Your task to perform on an android device: Open Maps and search for coffee Image 0: 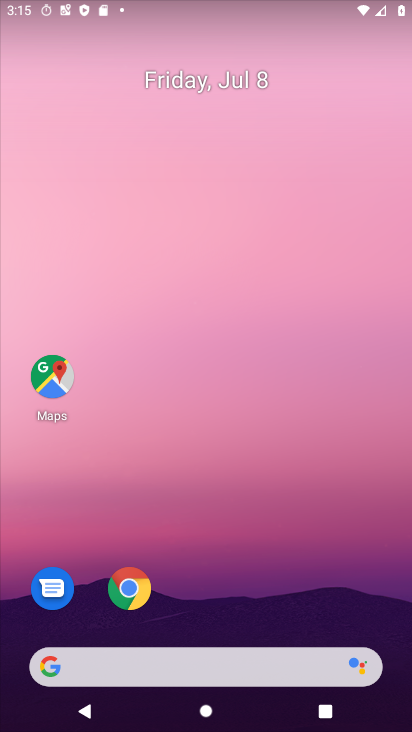
Step 0: press home button
Your task to perform on an android device: Open Maps and search for coffee Image 1: 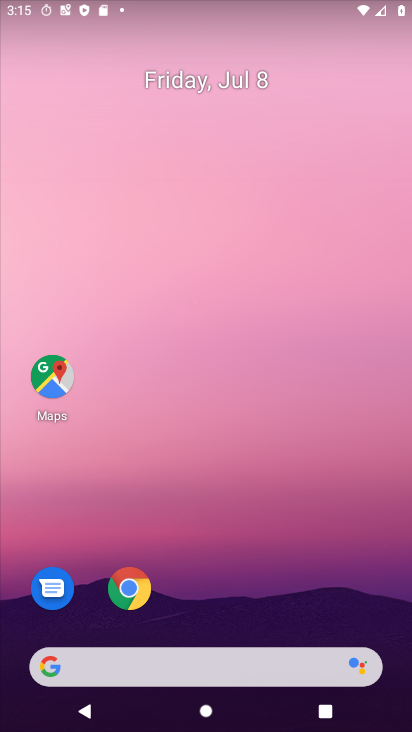
Step 1: drag from (244, 612) to (246, 71)
Your task to perform on an android device: Open Maps and search for coffee Image 2: 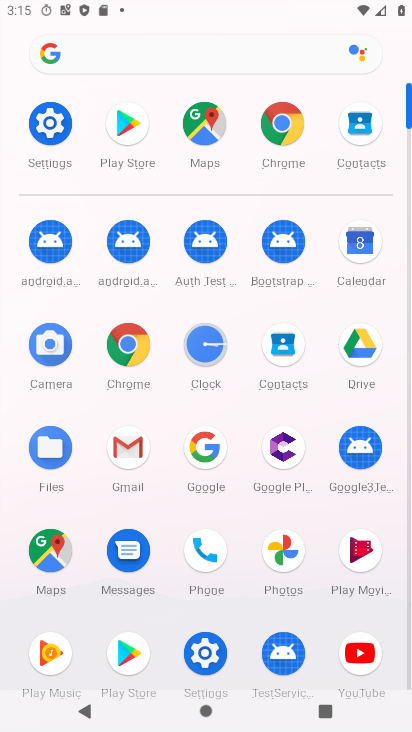
Step 2: click (210, 131)
Your task to perform on an android device: Open Maps and search for coffee Image 3: 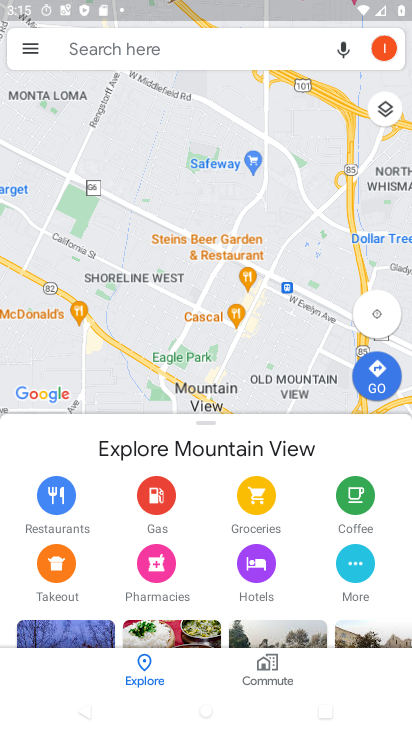
Step 3: click (168, 57)
Your task to perform on an android device: Open Maps and search for coffee Image 4: 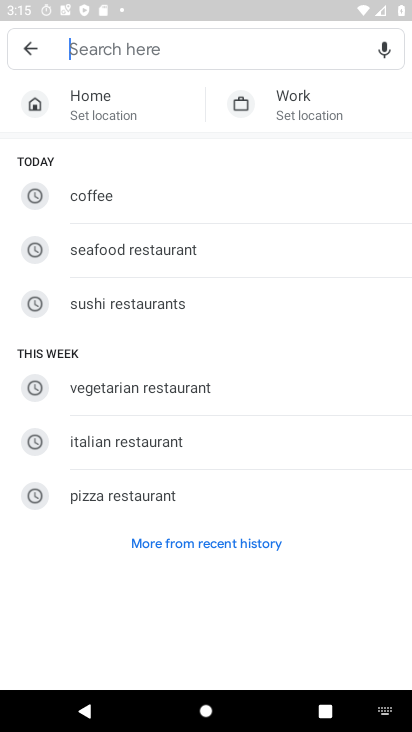
Step 4: click (88, 197)
Your task to perform on an android device: Open Maps and search for coffee Image 5: 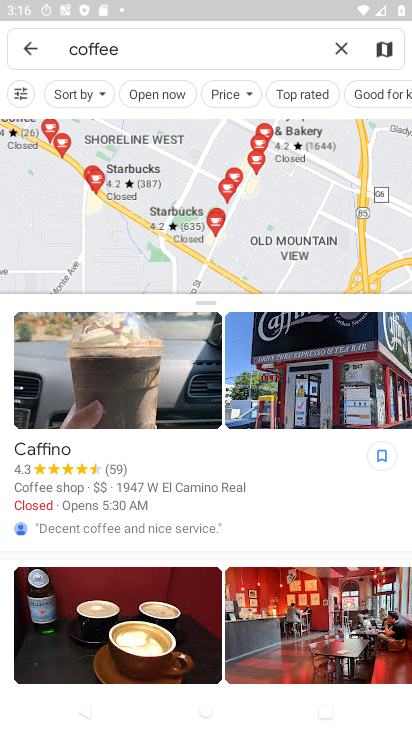
Step 5: task complete